Your task to perform on an android device: Go to Android settings Image 0: 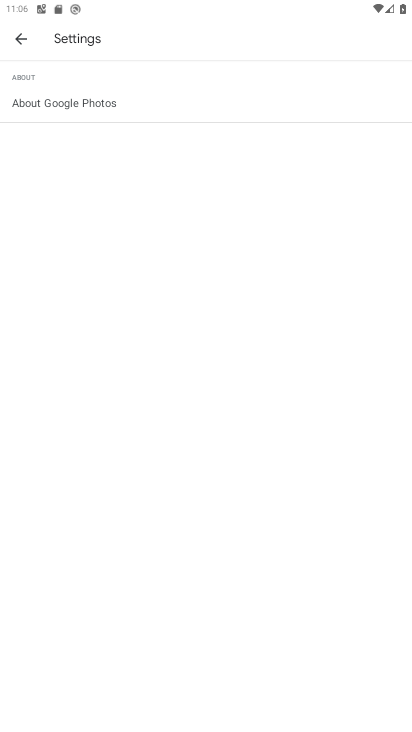
Step 0: press home button
Your task to perform on an android device: Go to Android settings Image 1: 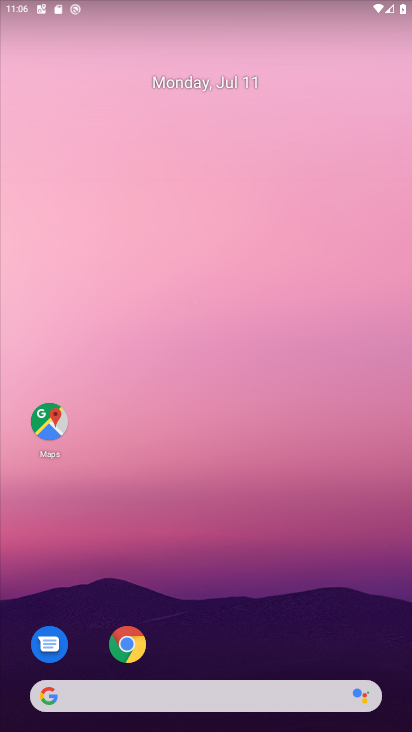
Step 1: drag from (285, 601) to (285, 61)
Your task to perform on an android device: Go to Android settings Image 2: 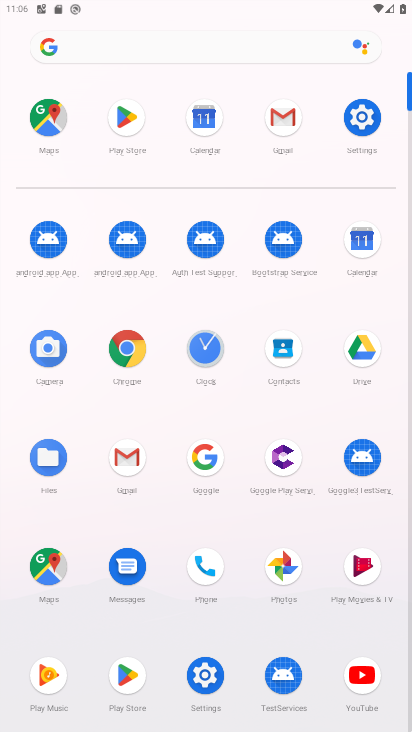
Step 2: click (363, 118)
Your task to perform on an android device: Go to Android settings Image 3: 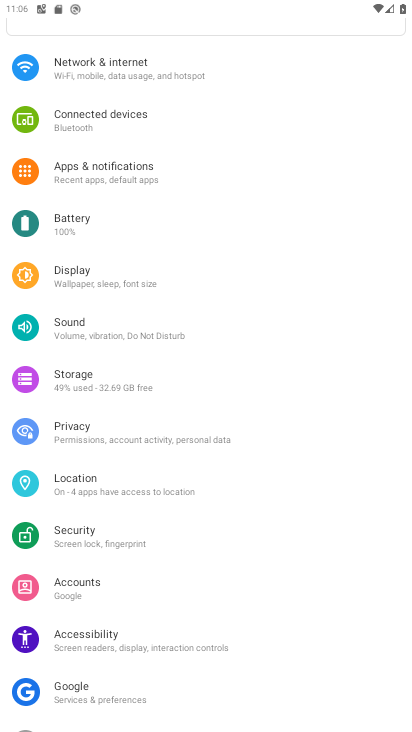
Step 3: drag from (138, 649) to (138, 474)
Your task to perform on an android device: Go to Android settings Image 4: 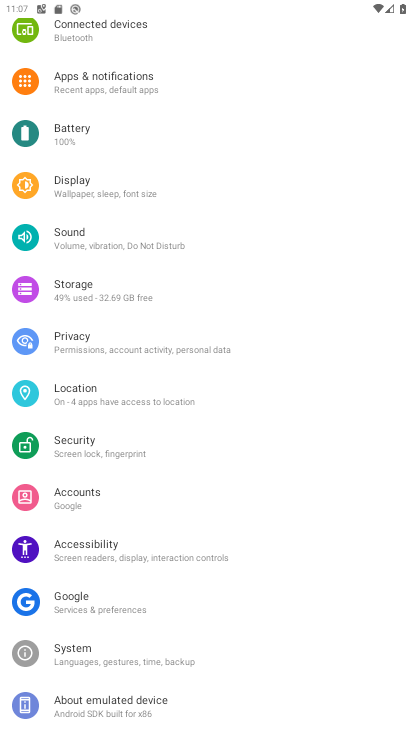
Step 4: click (131, 656)
Your task to perform on an android device: Go to Android settings Image 5: 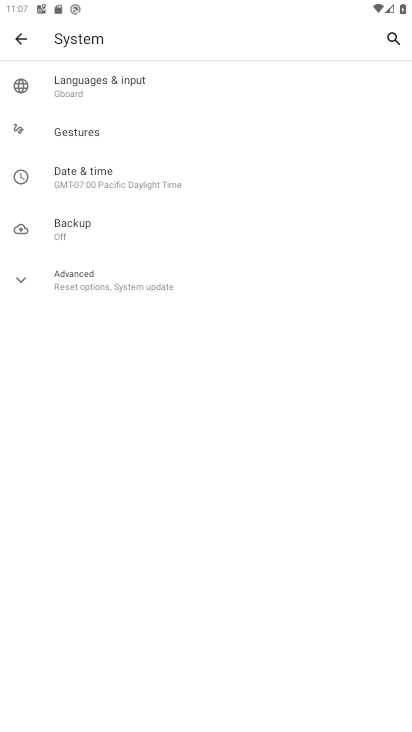
Step 5: task complete